Your task to perform on an android device: change your default location settings in chrome Image 0: 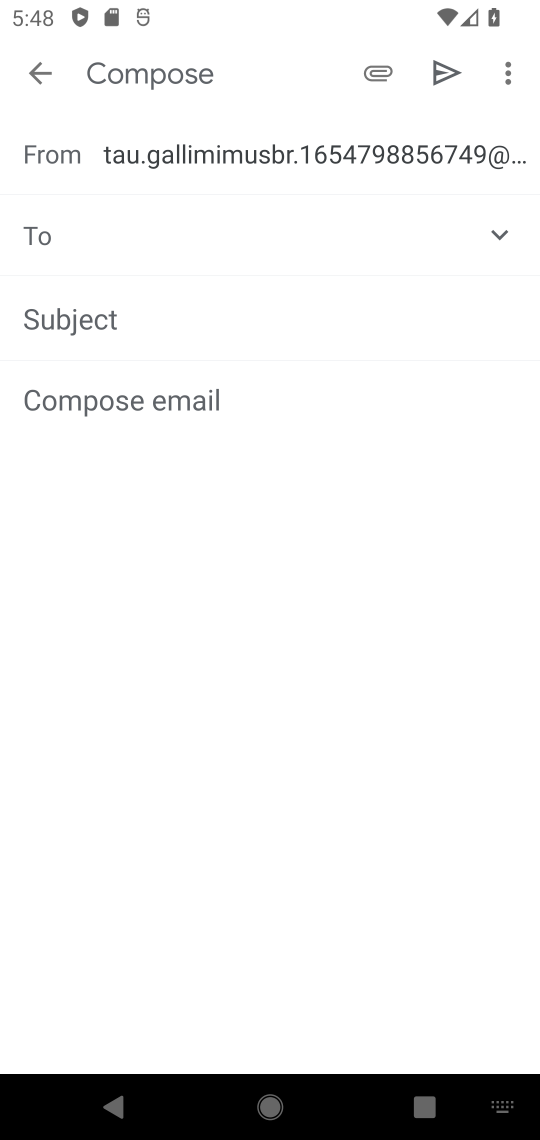
Step 0: press home button
Your task to perform on an android device: change your default location settings in chrome Image 1: 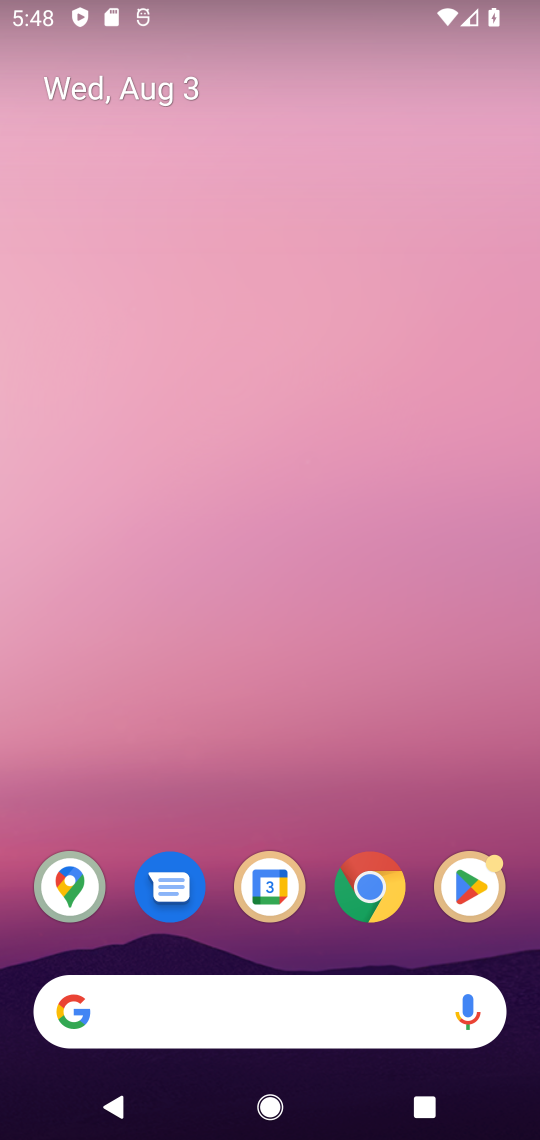
Step 1: click (385, 886)
Your task to perform on an android device: change your default location settings in chrome Image 2: 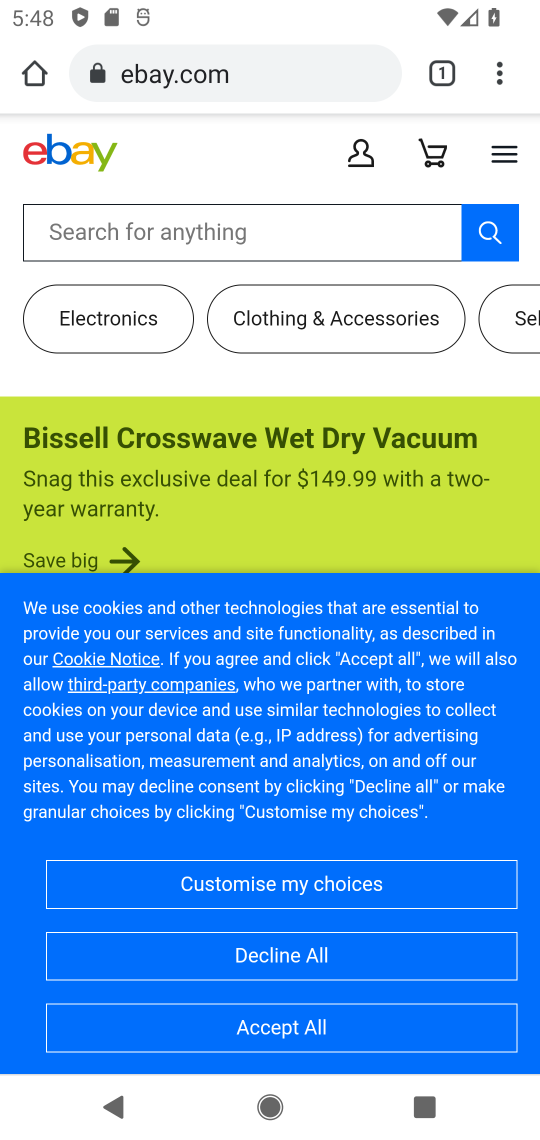
Step 2: drag from (502, 80) to (274, 950)
Your task to perform on an android device: change your default location settings in chrome Image 3: 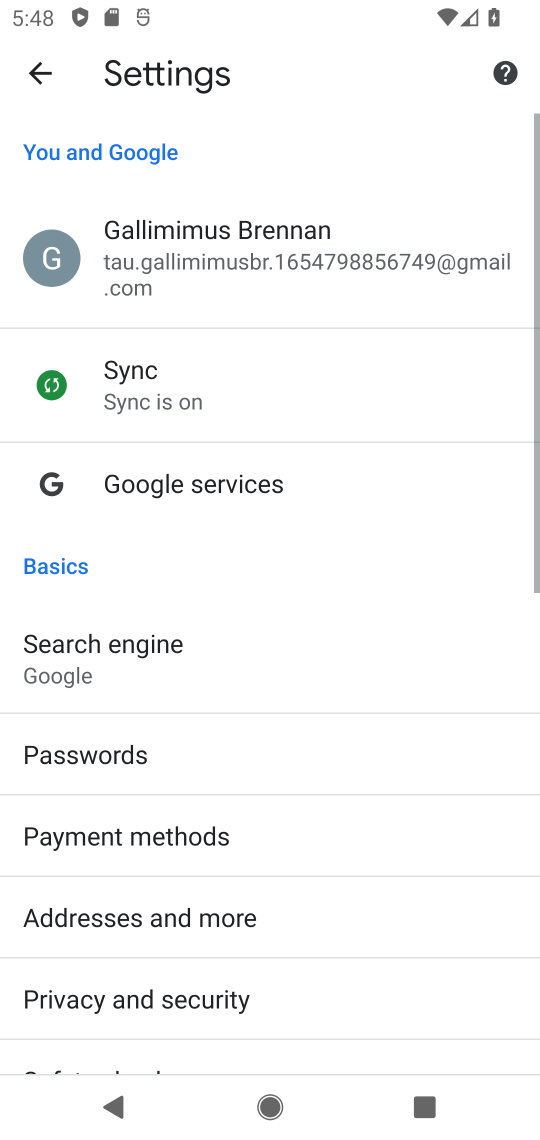
Step 3: drag from (272, 950) to (351, 133)
Your task to perform on an android device: change your default location settings in chrome Image 4: 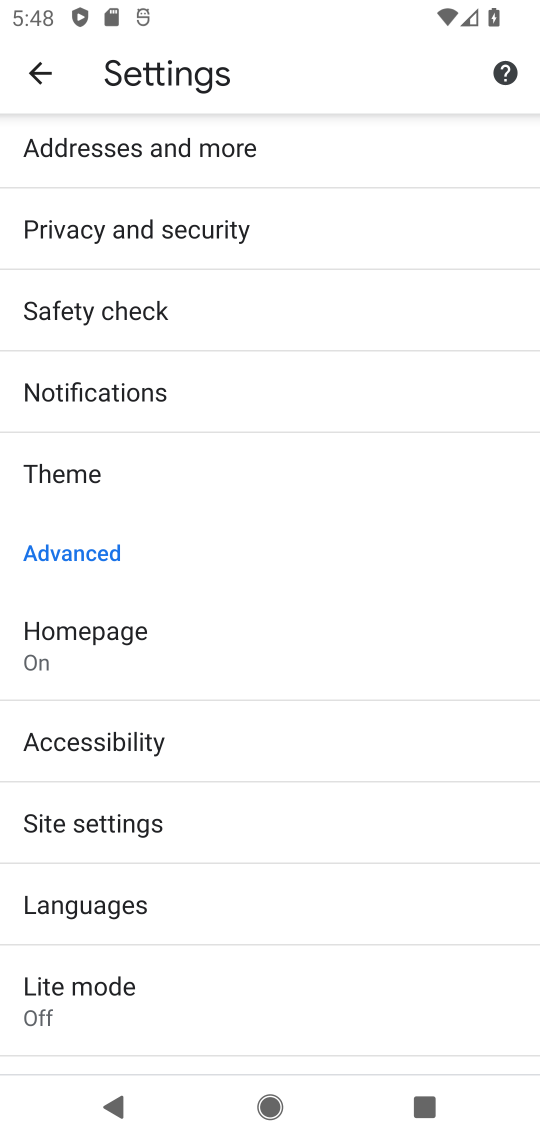
Step 4: click (109, 813)
Your task to perform on an android device: change your default location settings in chrome Image 5: 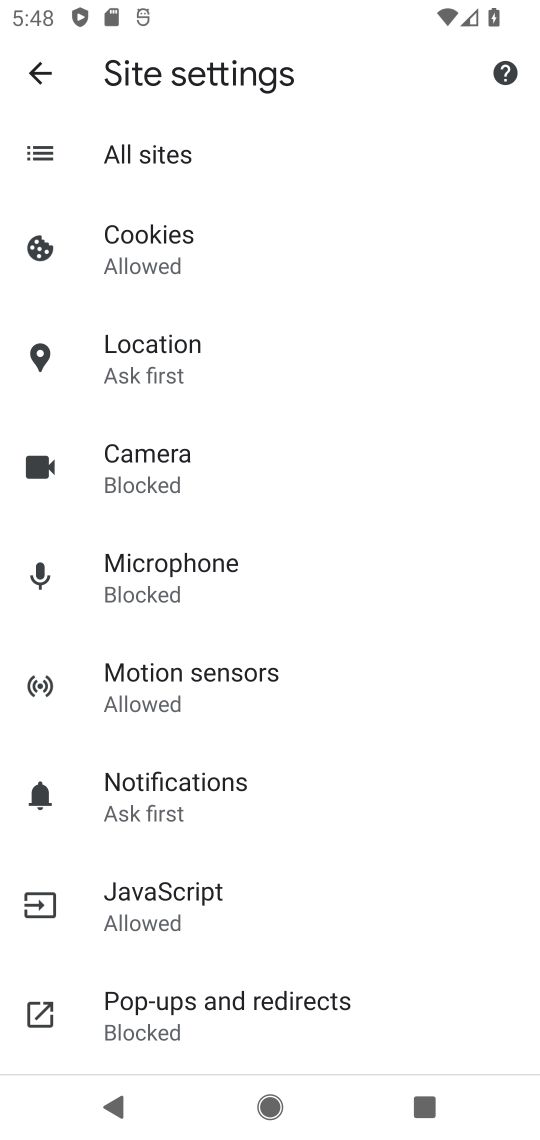
Step 5: click (120, 356)
Your task to perform on an android device: change your default location settings in chrome Image 6: 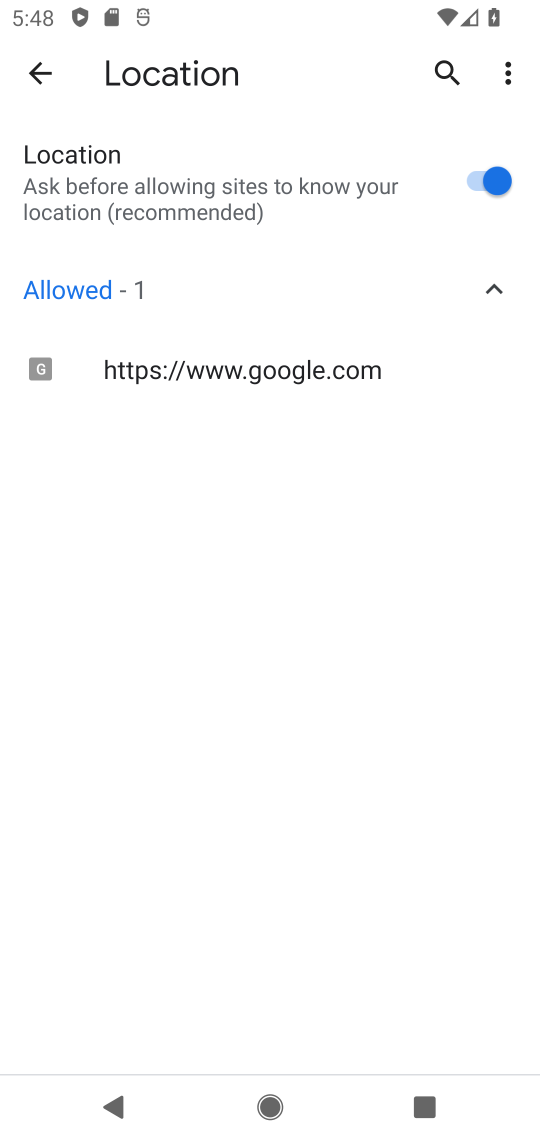
Step 6: click (490, 179)
Your task to perform on an android device: change your default location settings in chrome Image 7: 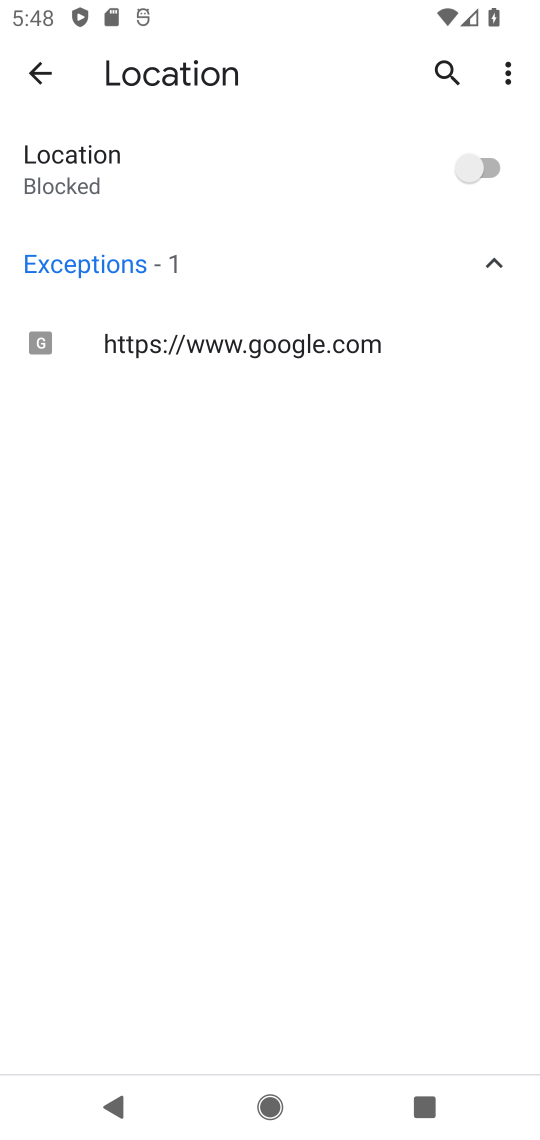
Step 7: task complete